Your task to perform on an android device: Open settings Image 0: 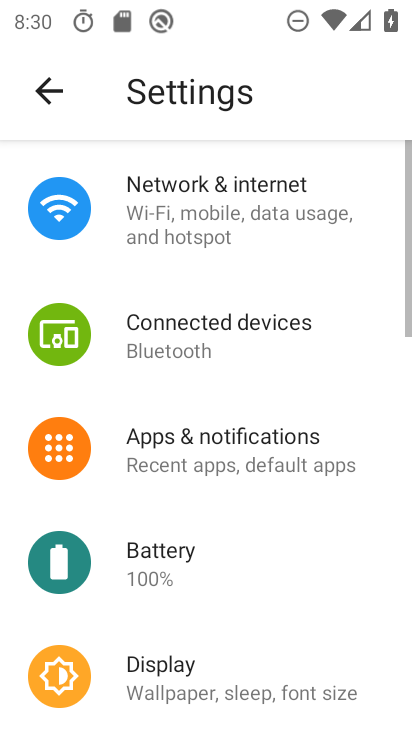
Step 0: press home button
Your task to perform on an android device: Open settings Image 1: 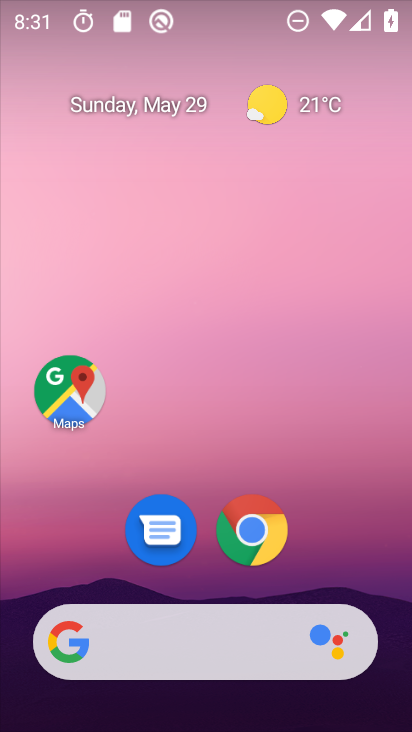
Step 1: drag from (212, 682) to (233, 220)
Your task to perform on an android device: Open settings Image 2: 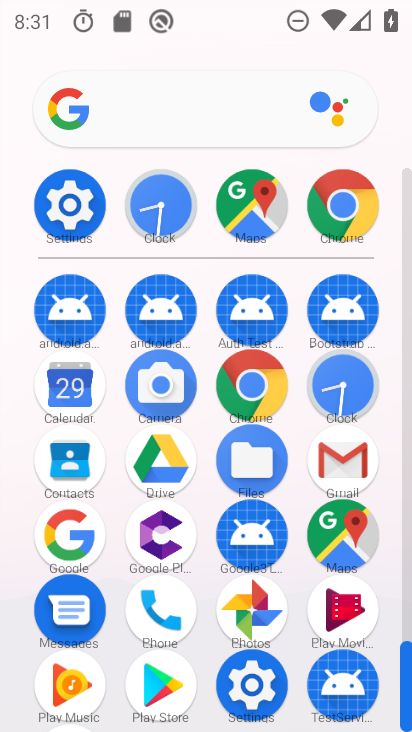
Step 2: click (74, 206)
Your task to perform on an android device: Open settings Image 3: 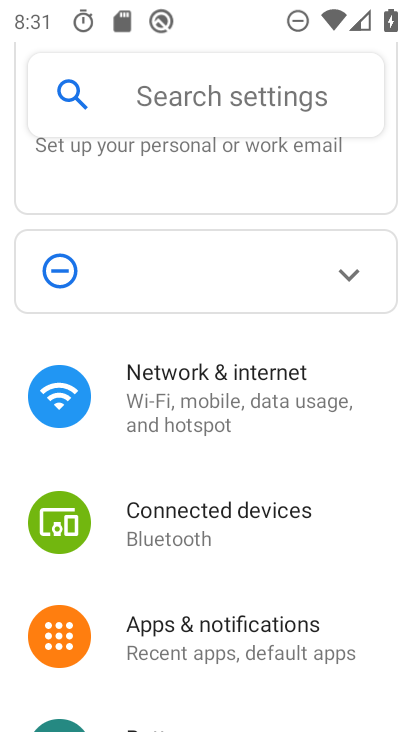
Step 3: task complete